Your task to perform on an android device: Open internet settings Image 0: 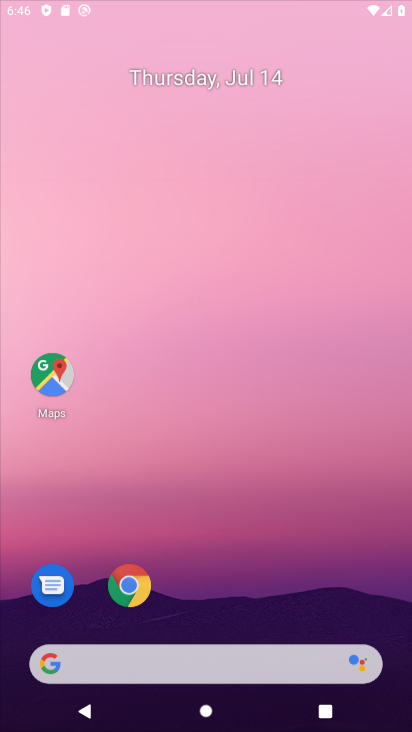
Step 0: drag from (392, 614) to (284, 95)
Your task to perform on an android device: Open internet settings Image 1: 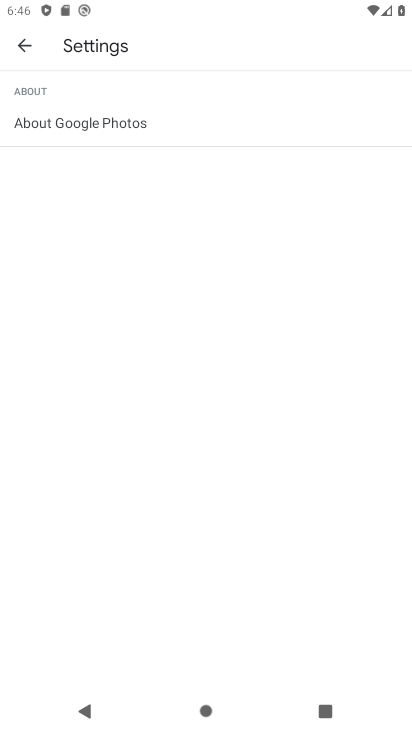
Step 1: press home button
Your task to perform on an android device: Open internet settings Image 2: 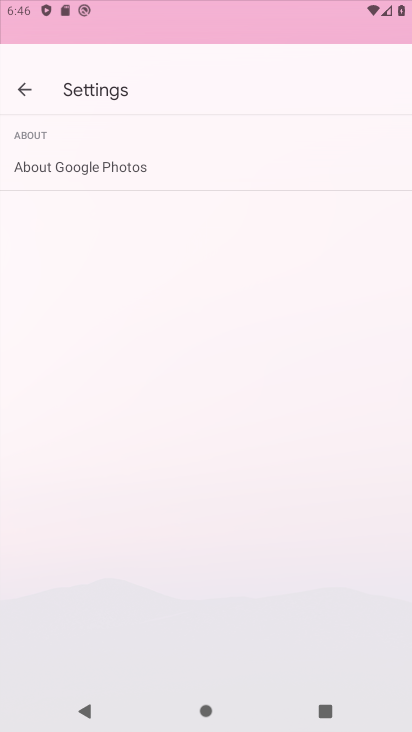
Step 2: drag from (398, 729) to (371, 248)
Your task to perform on an android device: Open internet settings Image 3: 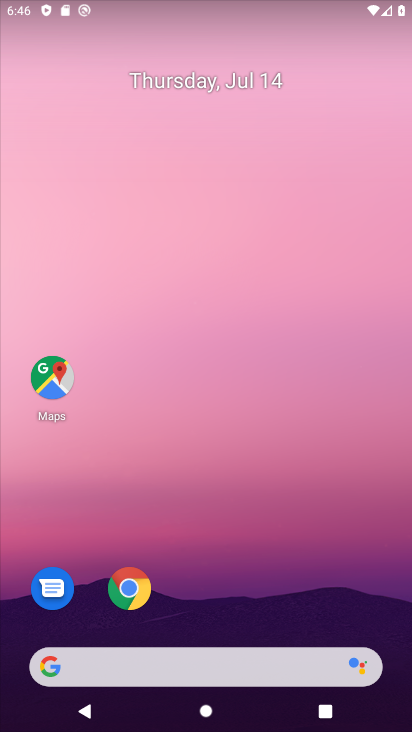
Step 3: drag from (380, 634) to (330, 344)
Your task to perform on an android device: Open internet settings Image 4: 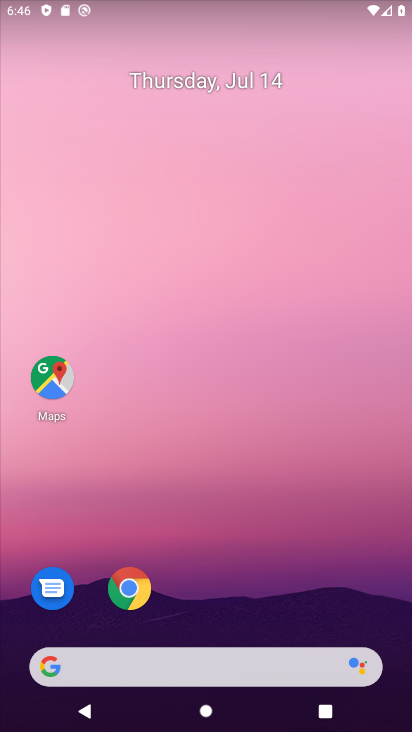
Step 4: drag from (376, 624) to (224, 202)
Your task to perform on an android device: Open internet settings Image 5: 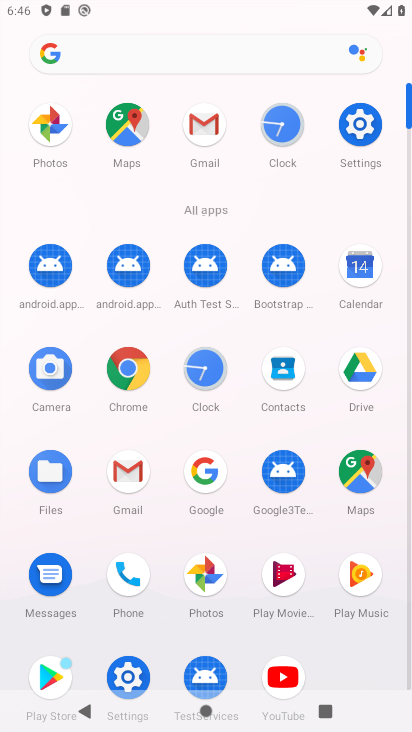
Step 5: click (358, 124)
Your task to perform on an android device: Open internet settings Image 6: 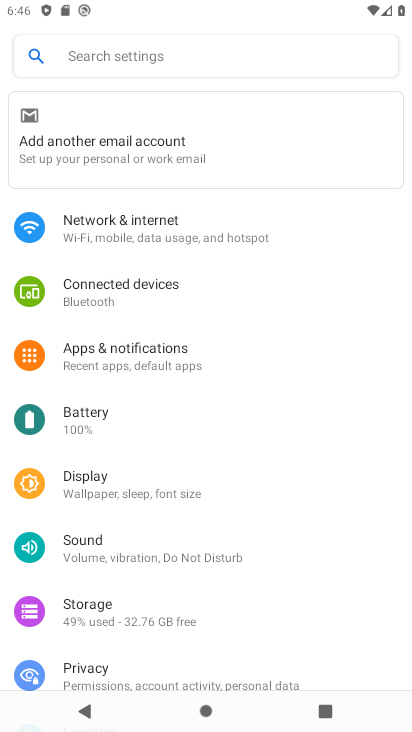
Step 6: click (143, 226)
Your task to perform on an android device: Open internet settings Image 7: 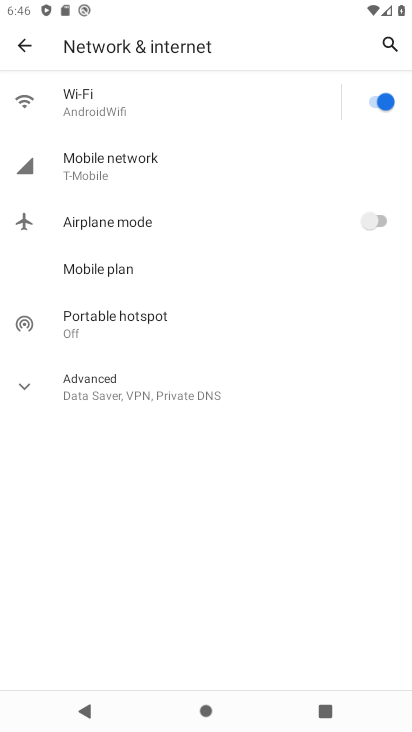
Step 7: task complete